Your task to perform on an android device: Search for a 3d printer on aliexpress Image 0: 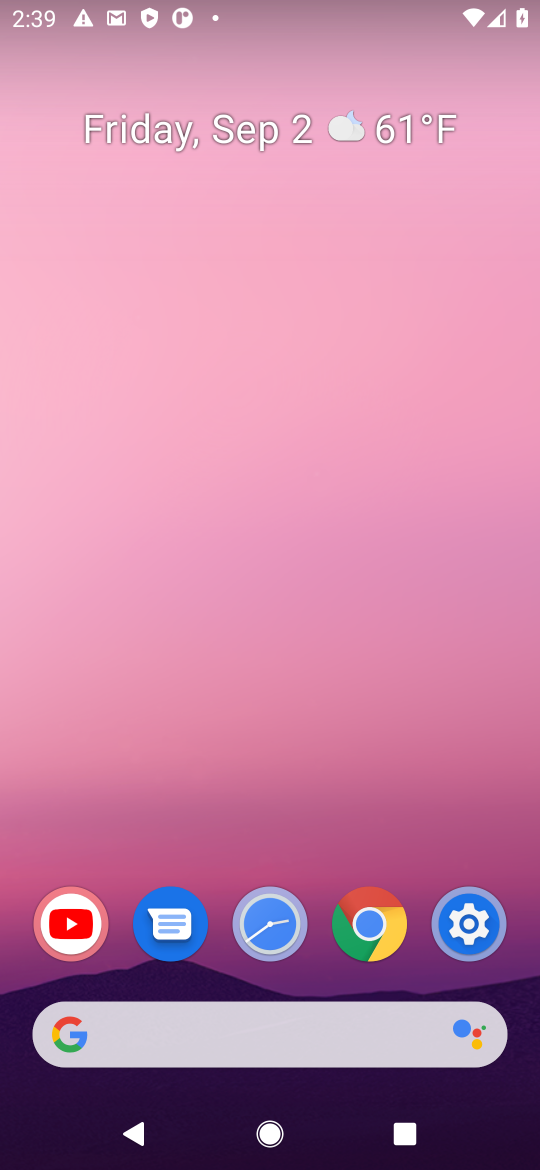
Step 0: click (357, 1049)
Your task to perform on an android device: Search for a 3d printer on aliexpress Image 1: 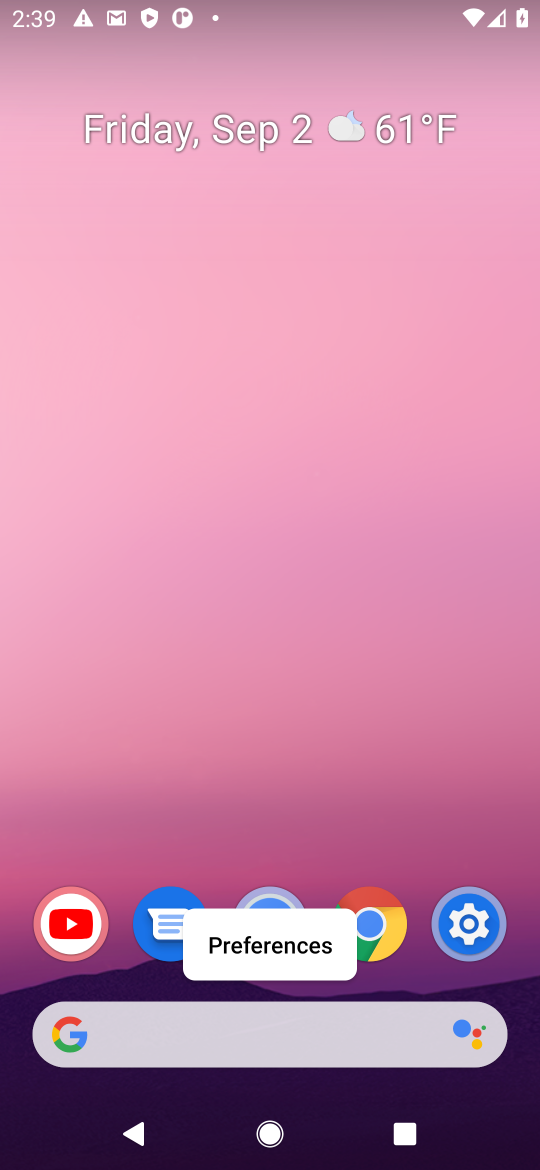
Step 1: click (366, 1047)
Your task to perform on an android device: Search for a 3d printer on aliexpress Image 2: 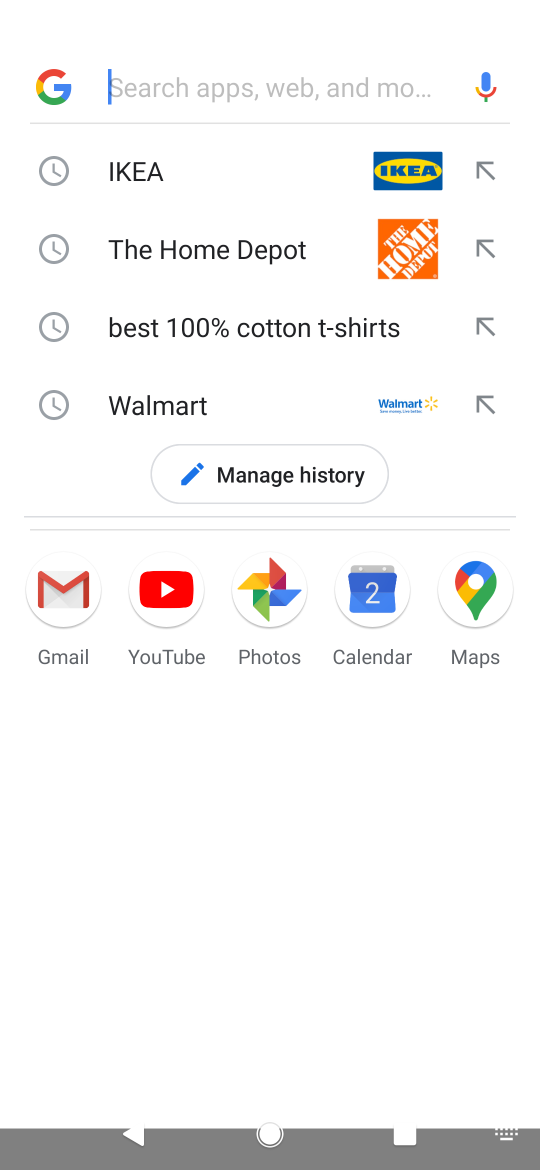
Step 2: click (291, 1035)
Your task to perform on an android device: Search for a 3d printer on aliexpress Image 3: 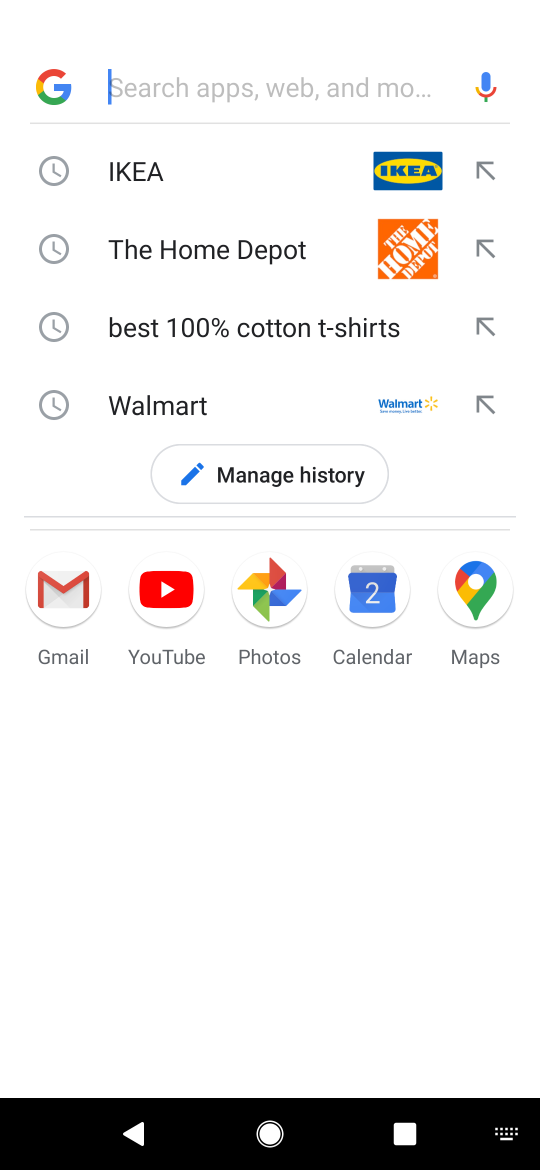
Step 3: press enter
Your task to perform on an android device: Search for a 3d printer on aliexpress Image 4: 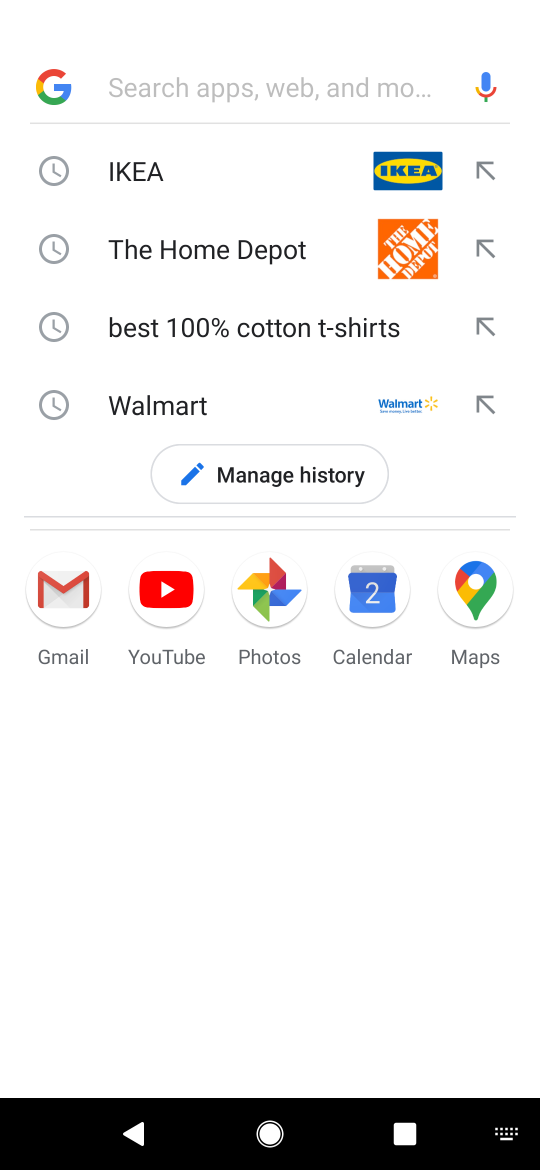
Step 4: type "aliexpress"
Your task to perform on an android device: Search for a 3d printer on aliexpress Image 5: 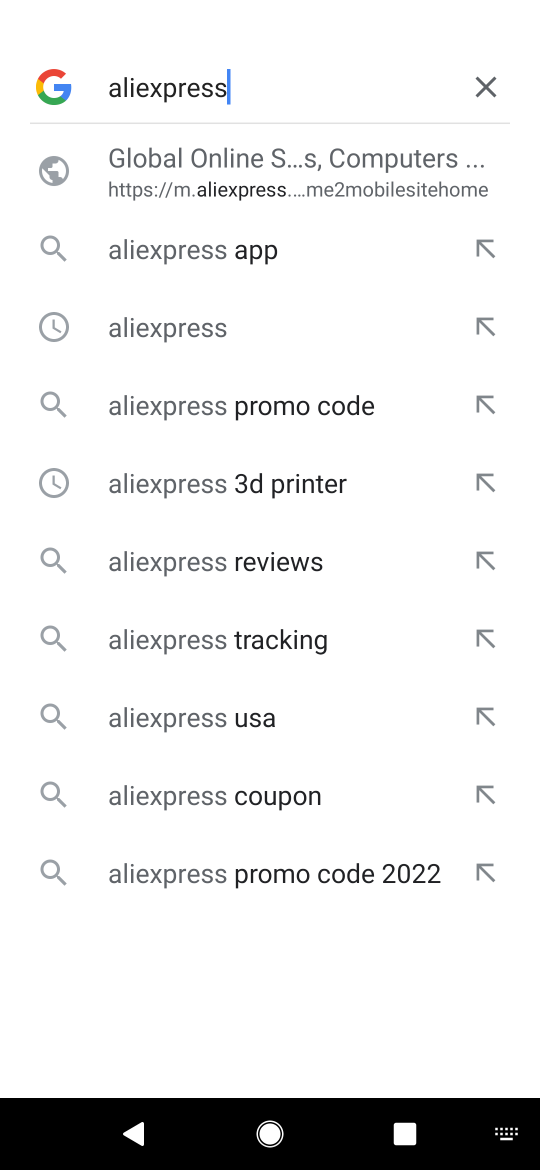
Step 5: click (292, 185)
Your task to perform on an android device: Search for a 3d printer on aliexpress Image 6: 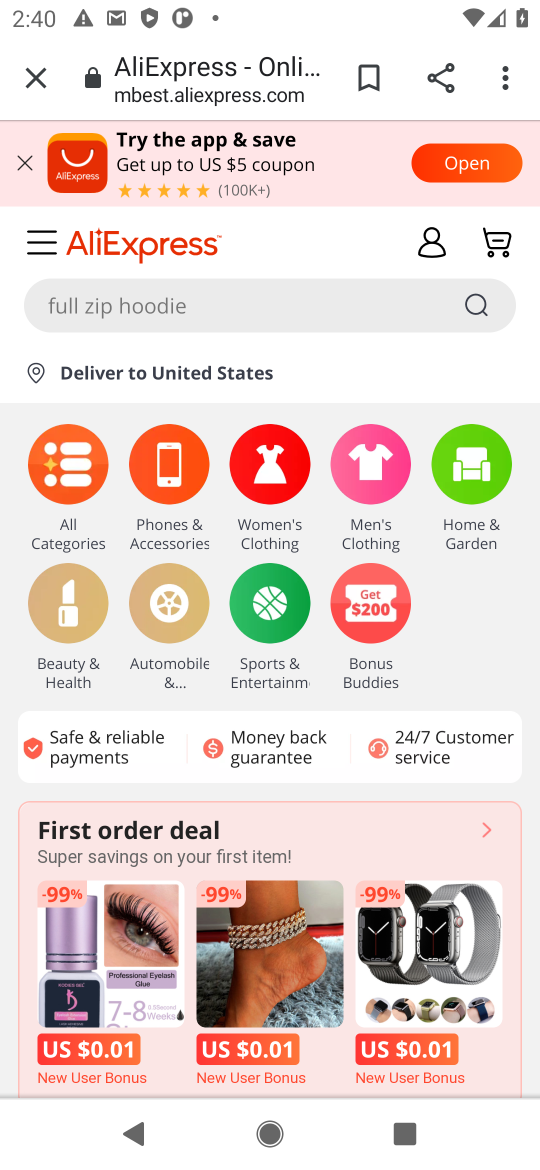
Step 6: click (259, 295)
Your task to perform on an android device: Search for a 3d printer on aliexpress Image 7: 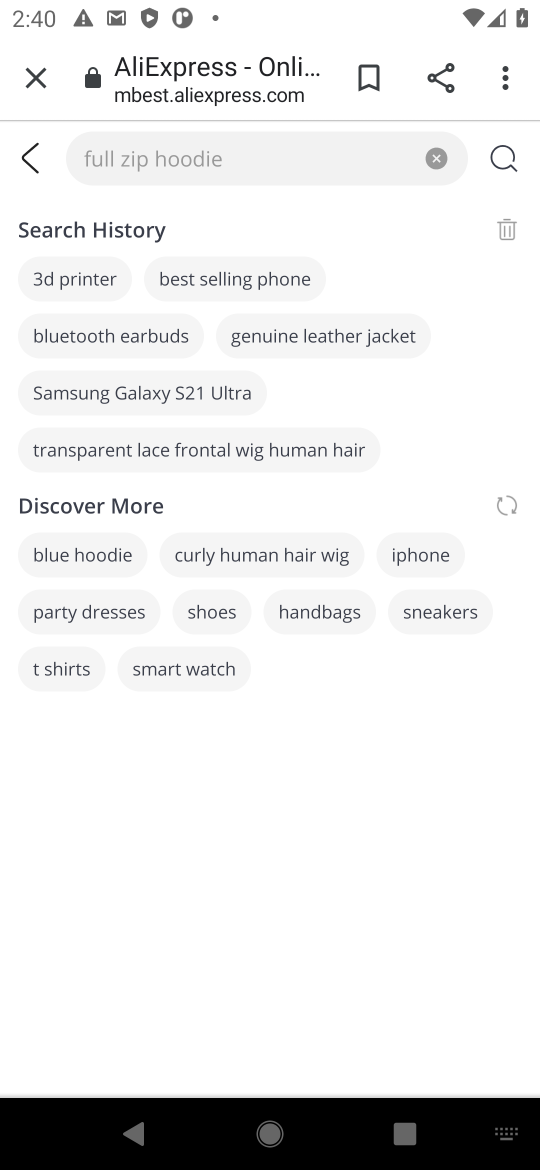
Step 7: click (79, 279)
Your task to perform on an android device: Search for a 3d printer on aliexpress Image 8: 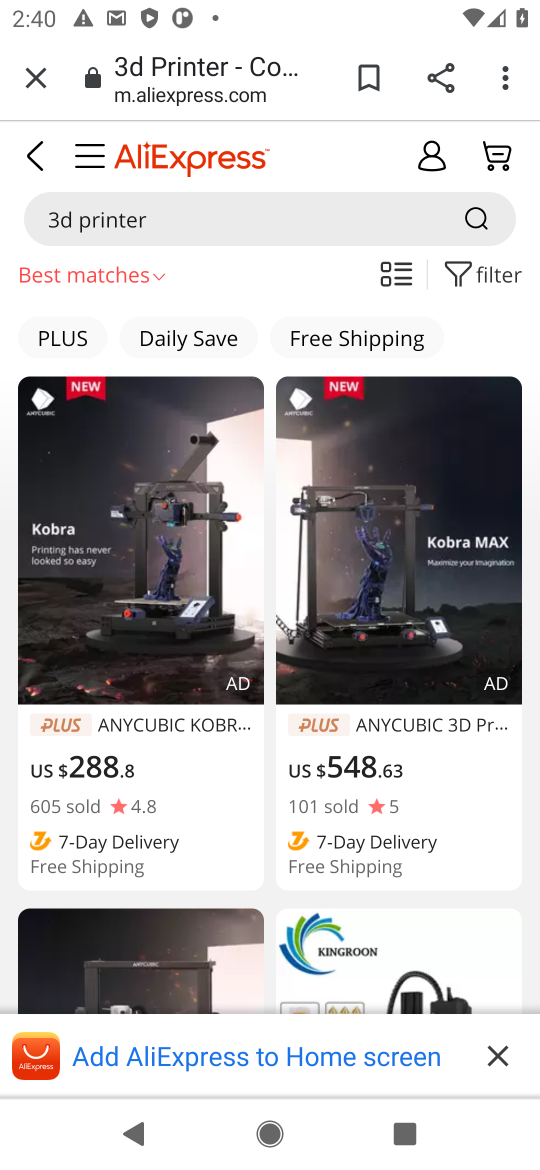
Step 8: task complete